Your task to perform on an android device: Open the calendar app, open the side menu, and click the "Day" option Image 0: 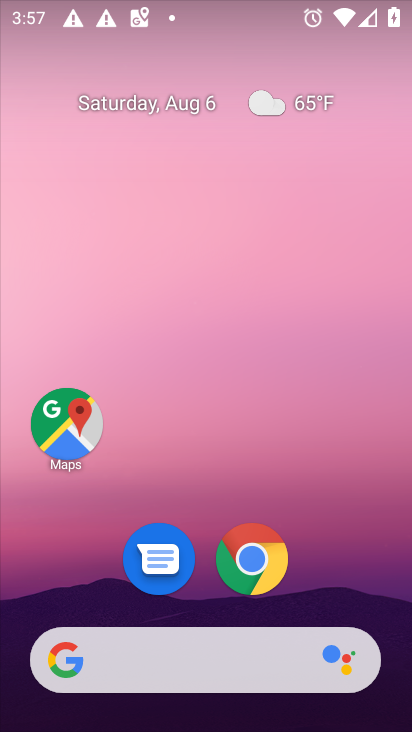
Step 0: drag from (262, 463) to (307, 0)
Your task to perform on an android device: Open the calendar app, open the side menu, and click the "Day" option Image 1: 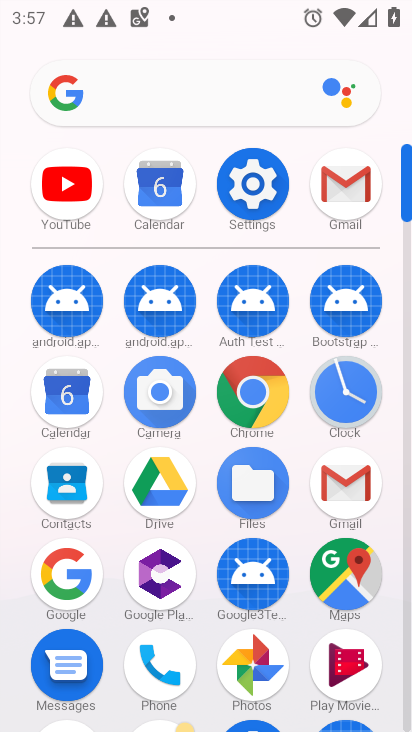
Step 1: click (167, 179)
Your task to perform on an android device: Open the calendar app, open the side menu, and click the "Day" option Image 2: 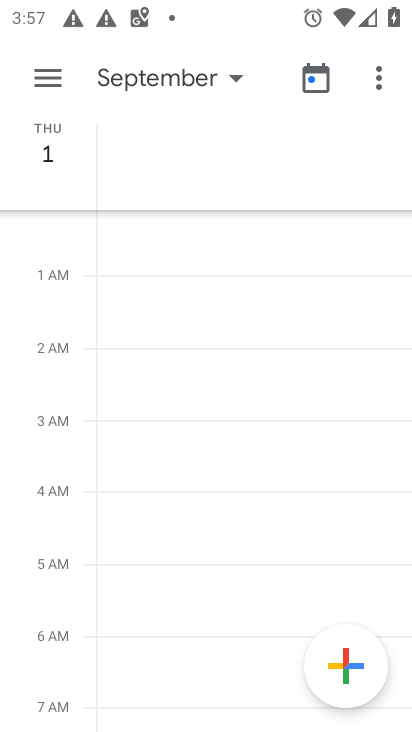
Step 2: click (56, 79)
Your task to perform on an android device: Open the calendar app, open the side menu, and click the "Day" option Image 3: 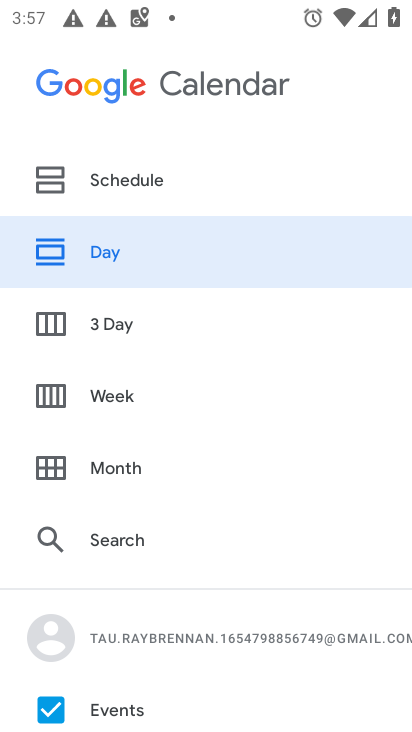
Step 3: click (56, 245)
Your task to perform on an android device: Open the calendar app, open the side menu, and click the "Day" option Image 4: 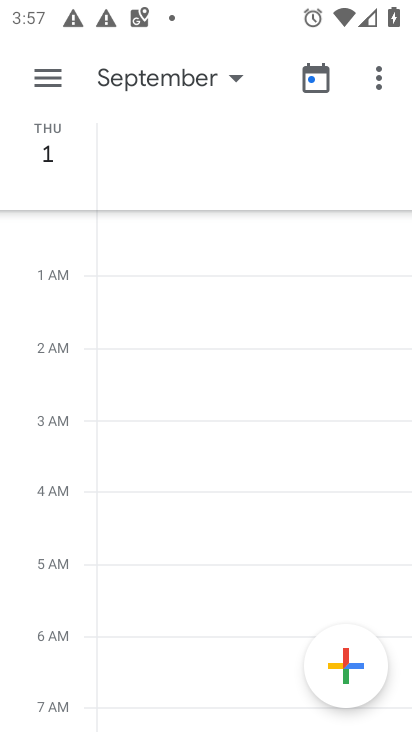
Step 4: task complete